Your task to perform on an android device: change text size in settings app Image 0: 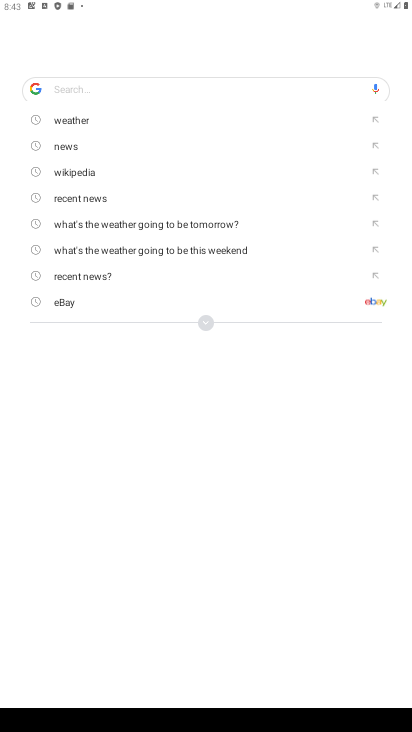
Step 0: press home button
Your task to perform on an android device: change text size in settings app Image 1: 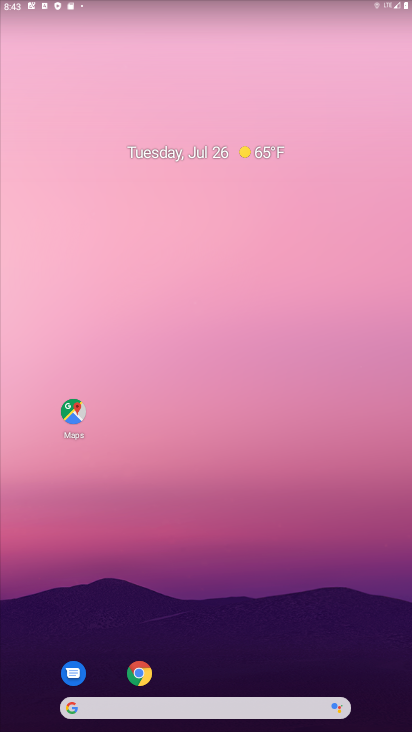
Step 1: drag from (213, 603) to (239, 161)
Your task to perform on an android device: change text size in settings app Image 2: 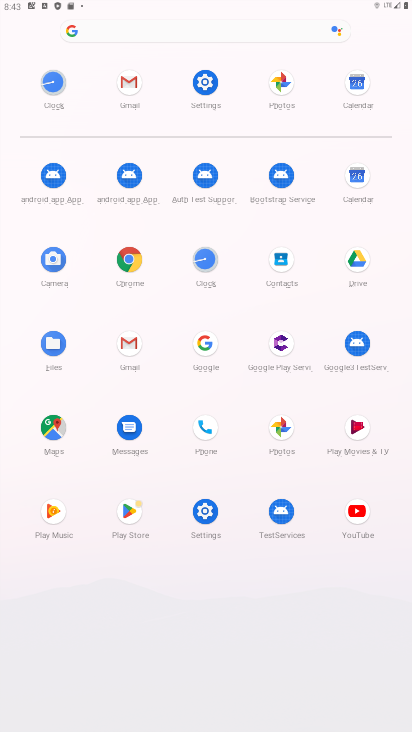
Step 2: click (205, 97)
Your task to perform on an android device: change text size in settings app Image 3: 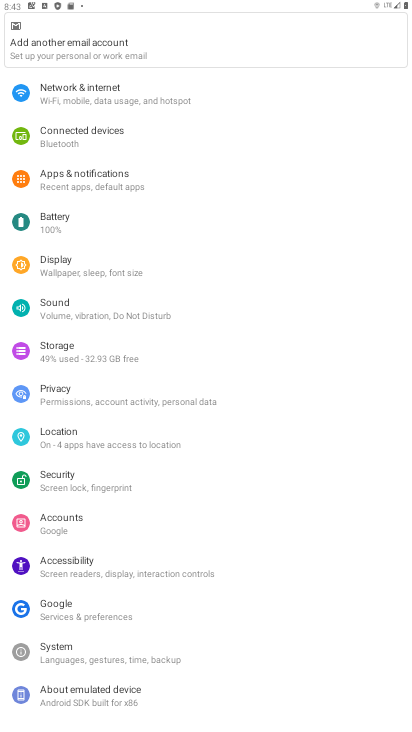
Step 3: click (57, 256)
Your task to perform on an android device: change text size in settings app Image 4: 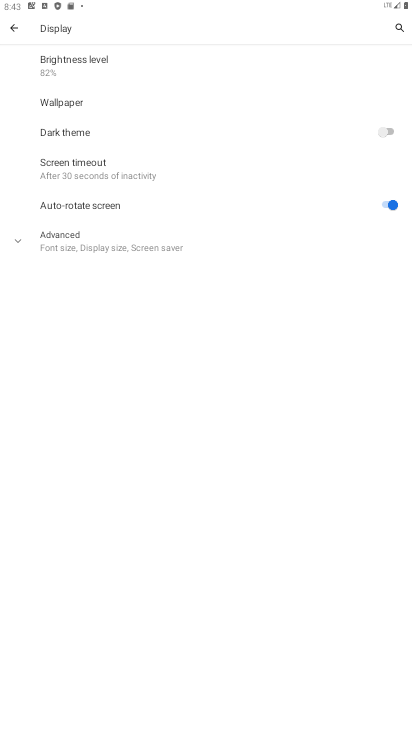
Step 4: click (65, 239)
Your task to perform on an android device: change text size in settings app Image 5: 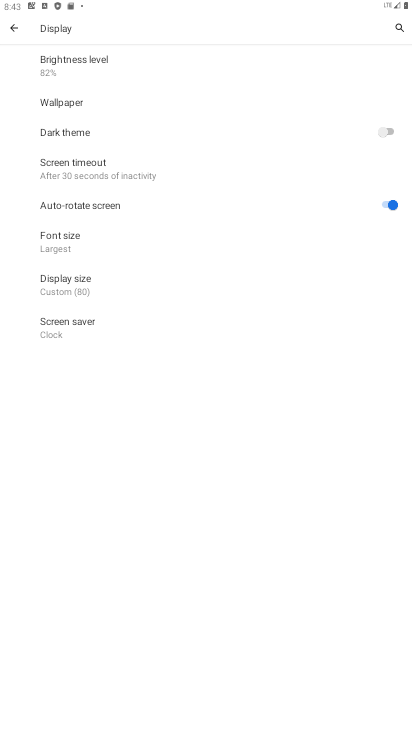
Step 5: click (50, 243)
Your task to perform on an android device: change text size in settings app Image 6: 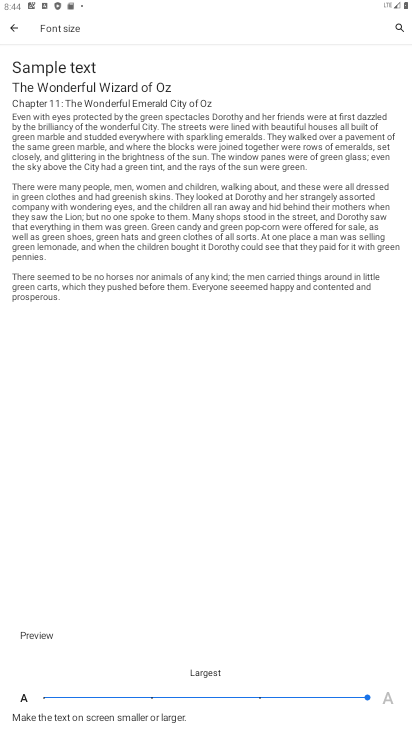
Step 6: click (290, 694)
Your task to perform on an android device: change text size in settings app Image 7: 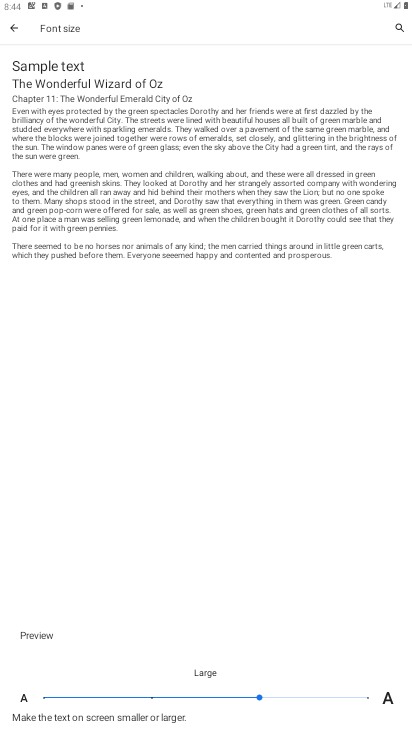
Step 7: task complete